Your task to perform on an android device: Search for panasonic triple a on costco, select the first entry, add it to the cart, then select checkout. Image 0: 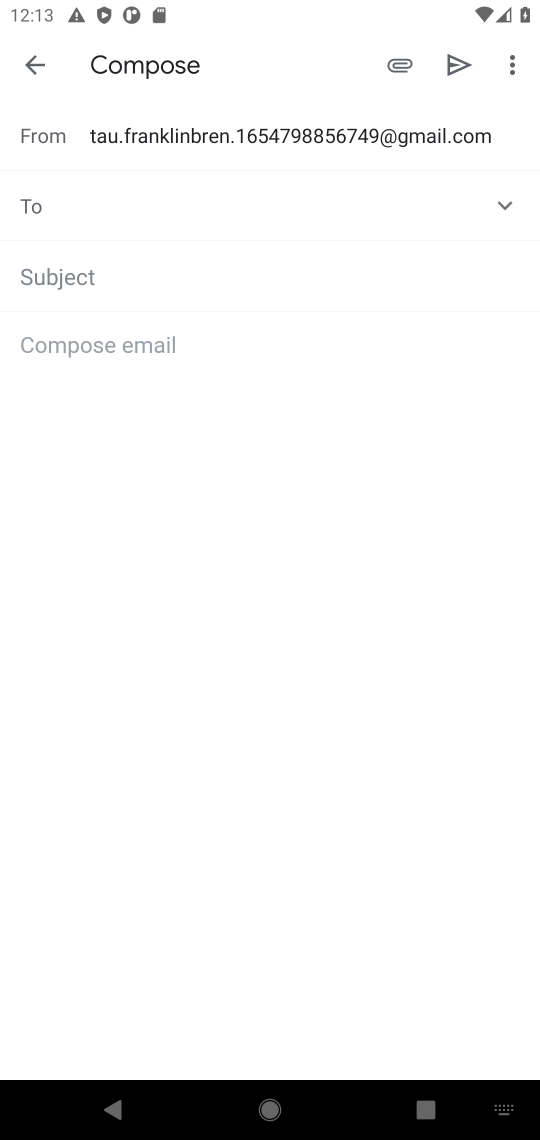
Step 0: press home button
Your task to perform on an android device: Search for panasonic triple a on costco, select the first entry, add it to the cart, then select checkout. Image 1: 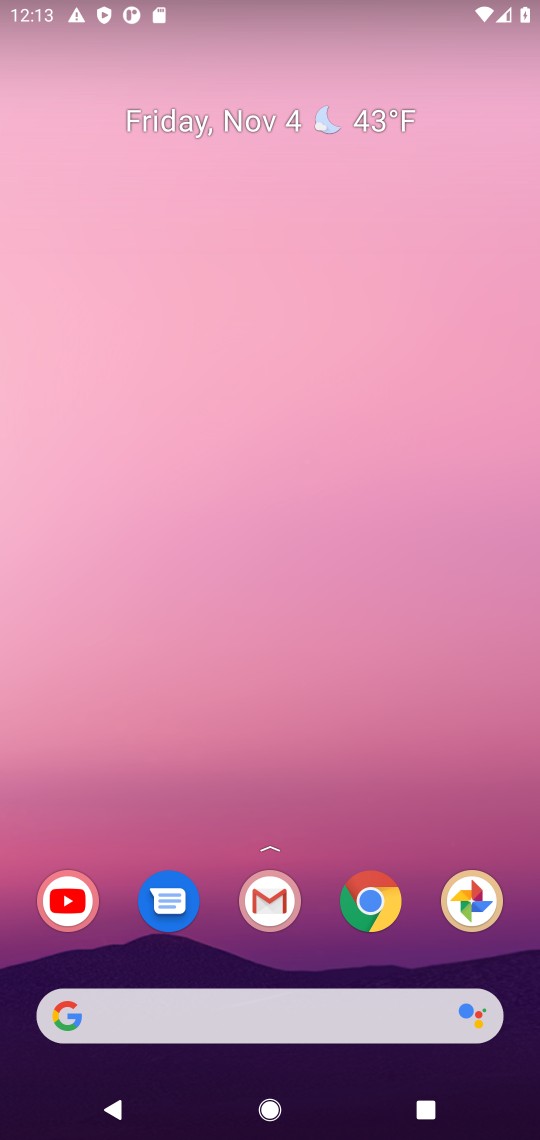
Step 1: click (367, 911)
Your task to perform on an android device: Search for panasonic triple a on costco, select the first entry, add it to the cart, then select checkout. Image 2: 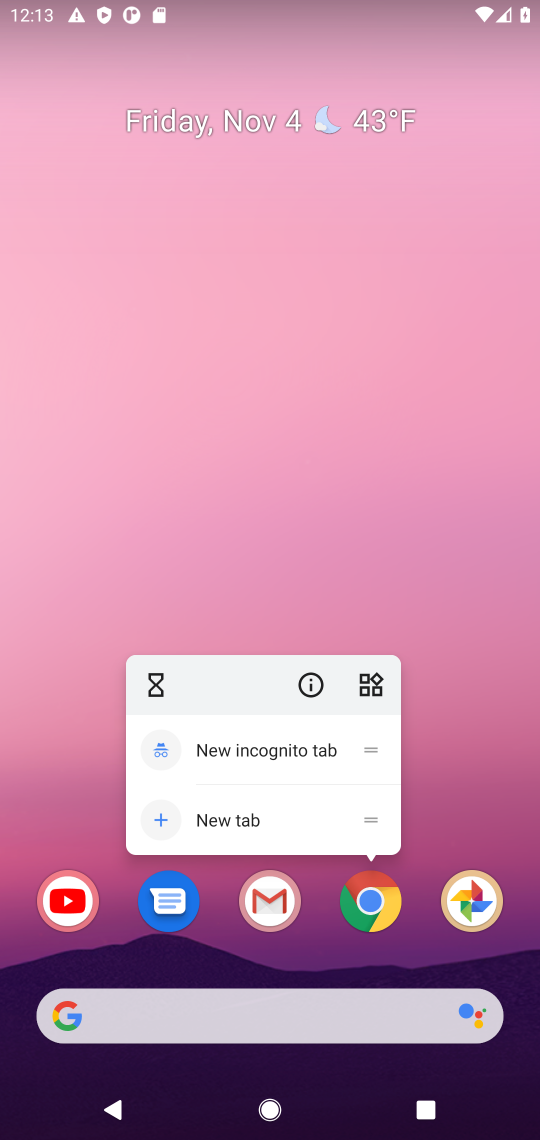
Step 2: click (367, 911)
Your task to perform on an android device: Search for panasonic triple a on costco, select the first entry, add it to the cart, then select checkout. Image 3: 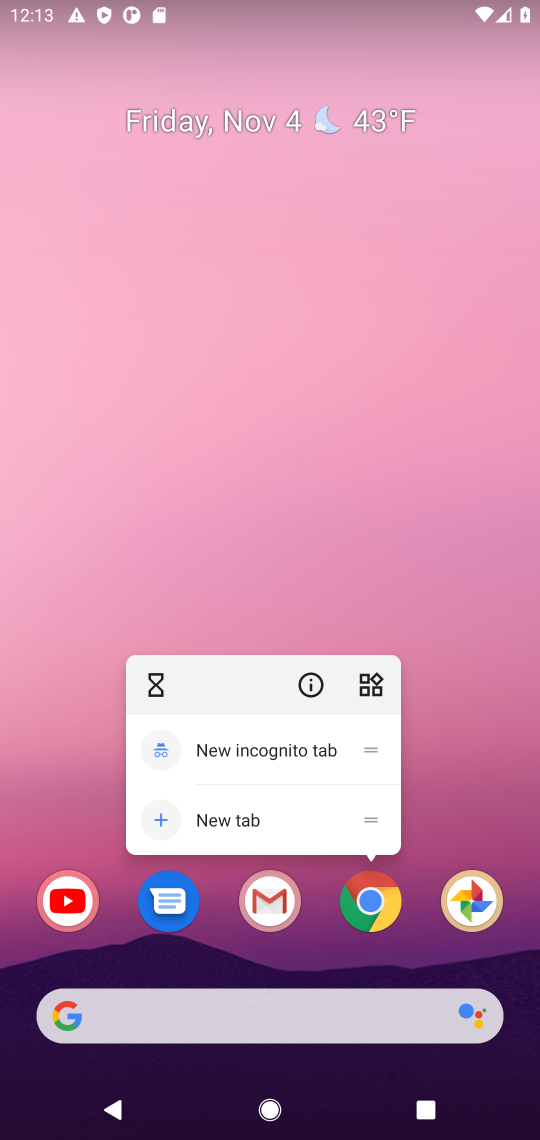
Step 3: click (367, 911)
Your task to perform on an android device: Search for panasonic triple a on costco, select the first entry, add it to the cart, then select checkout. Image 4: 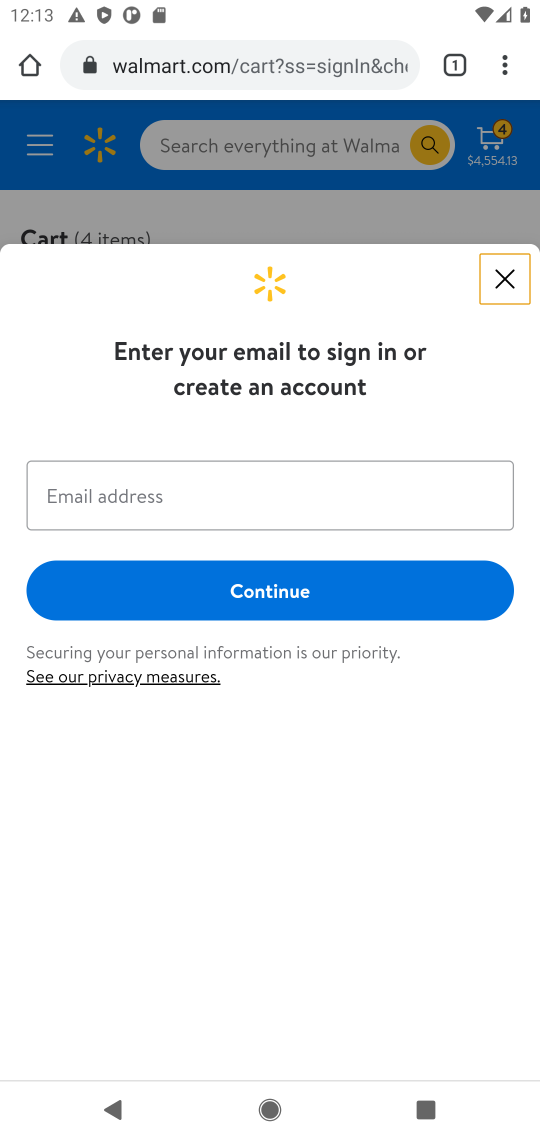
Step 4: click (283, 51)
Your task to perform on an android device: Search for panasonic triple a on costco, select the first entry, add it to the cart, then select checkout. Image 5: 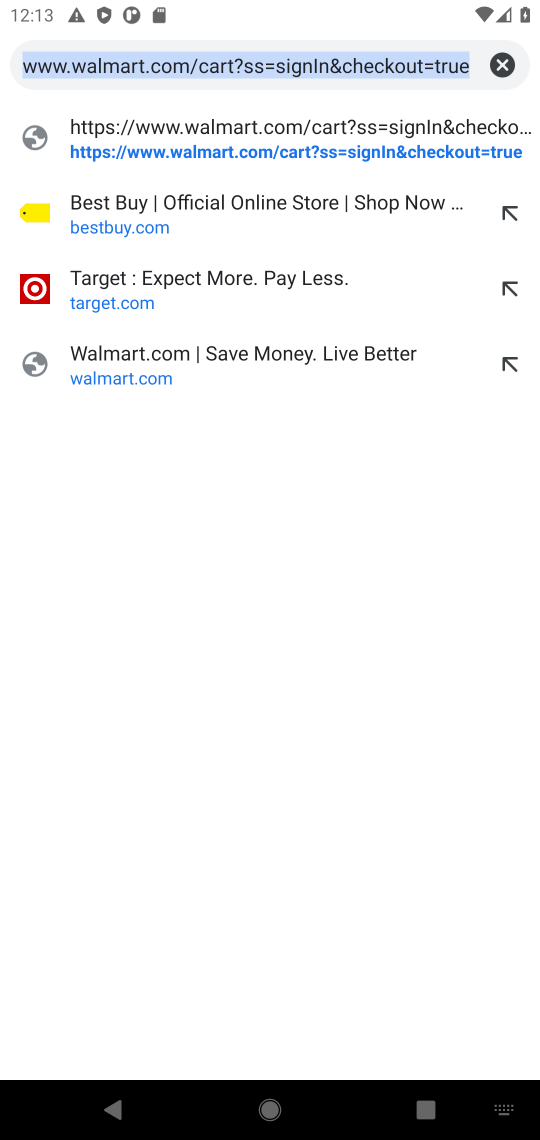
Step 5: click (508, 68)
Your task to perform on an android device: Search for panasonic triple a on costco, select the first entry, add it to the cart, then select checkout. Image 6: 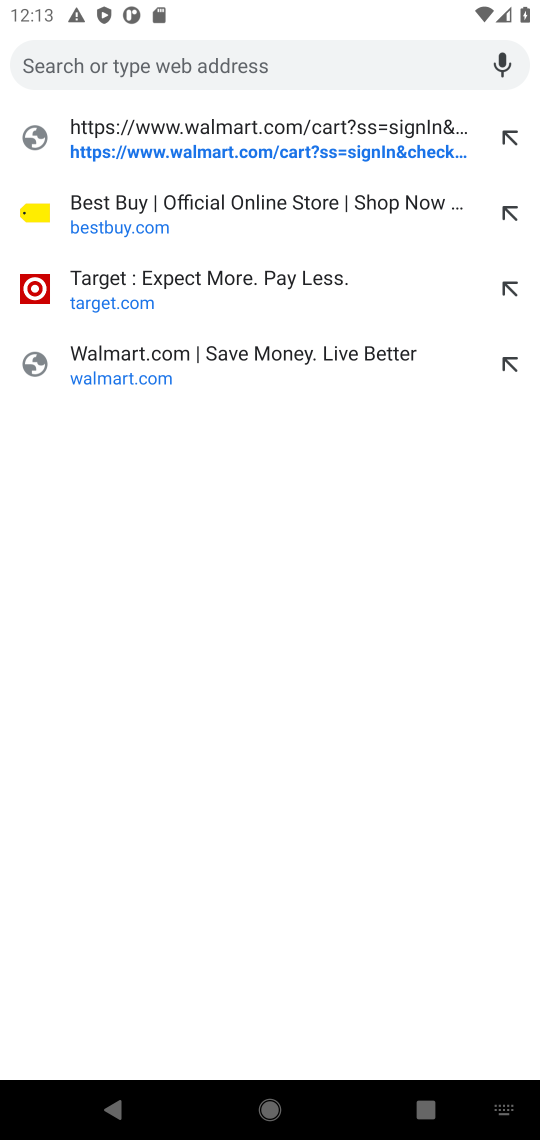
Step 6: type "costco"
Your task to perform on an android device: Search for panasonic triple a on costco, select the first entry, add it to the cart, then select checkout. Image 7: 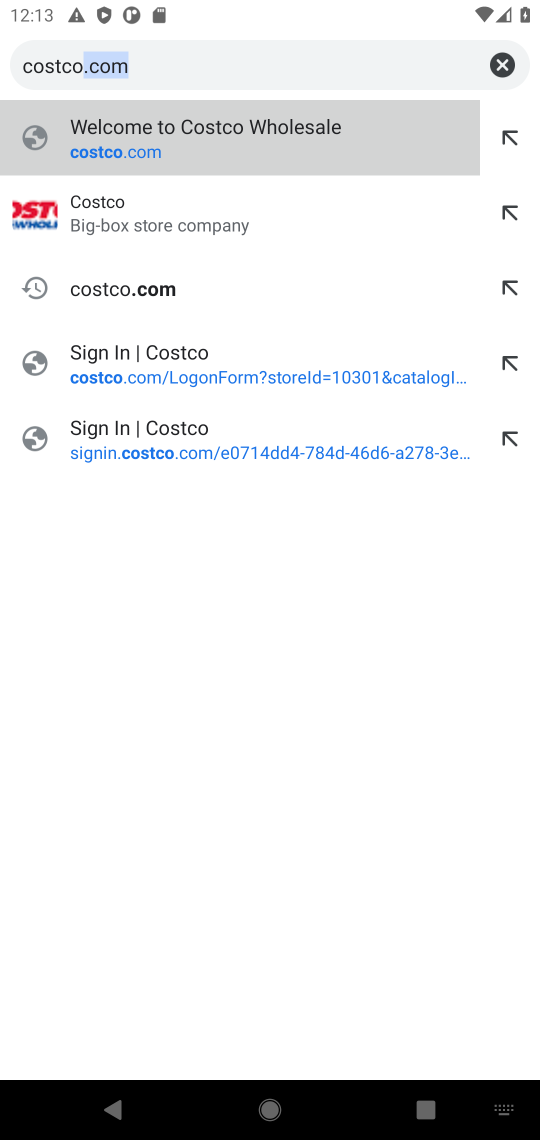
Step 7: press enter
Your task to perform on an android device: Search for panasonic triple a on costco, select the first entry, add it to the cart, then select checkout. Image 8: 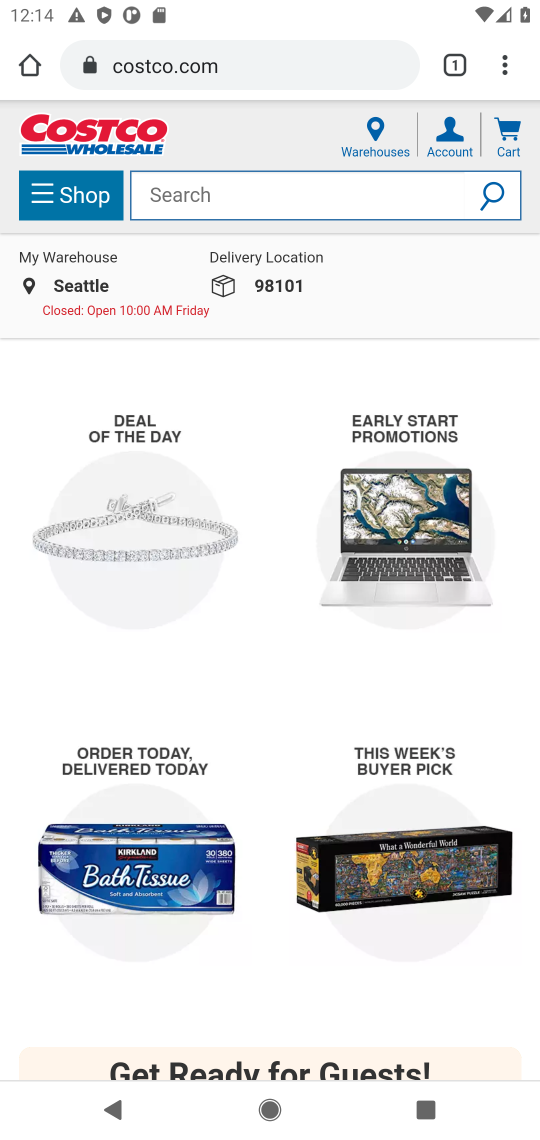
Step 8: click (327, 194)
Your task to perform on an android device: Search for panasonic triple a on costco, select the first entry, add it to the cart, then select checkout. Image 9: 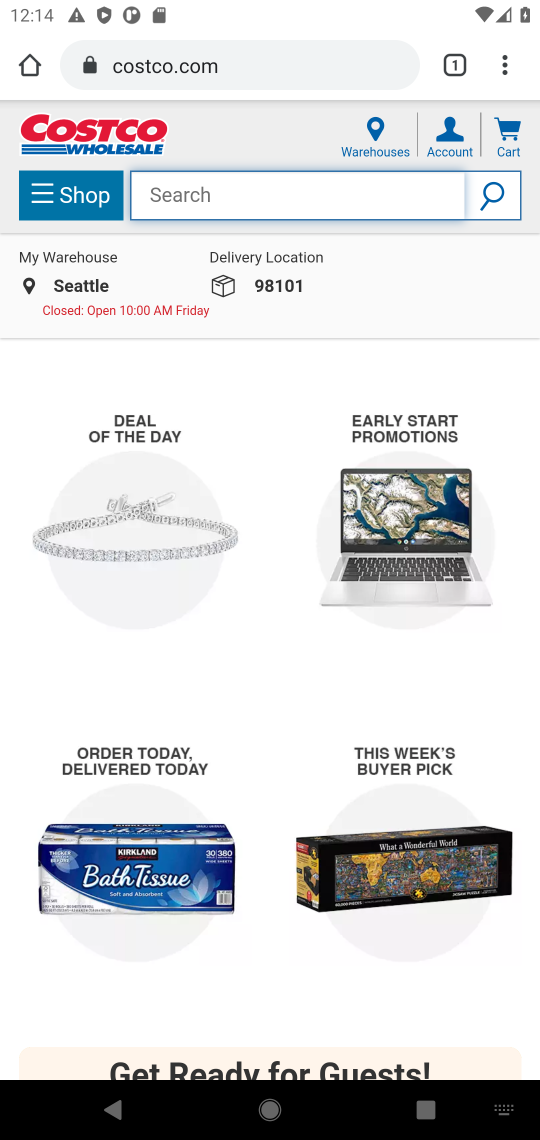
Step 9: type "panasonic triple a "
Your task to perform on an android device: Search for panasonic triple a on costco, select the first entry, add it to the cart, then select checkout. Image 10: 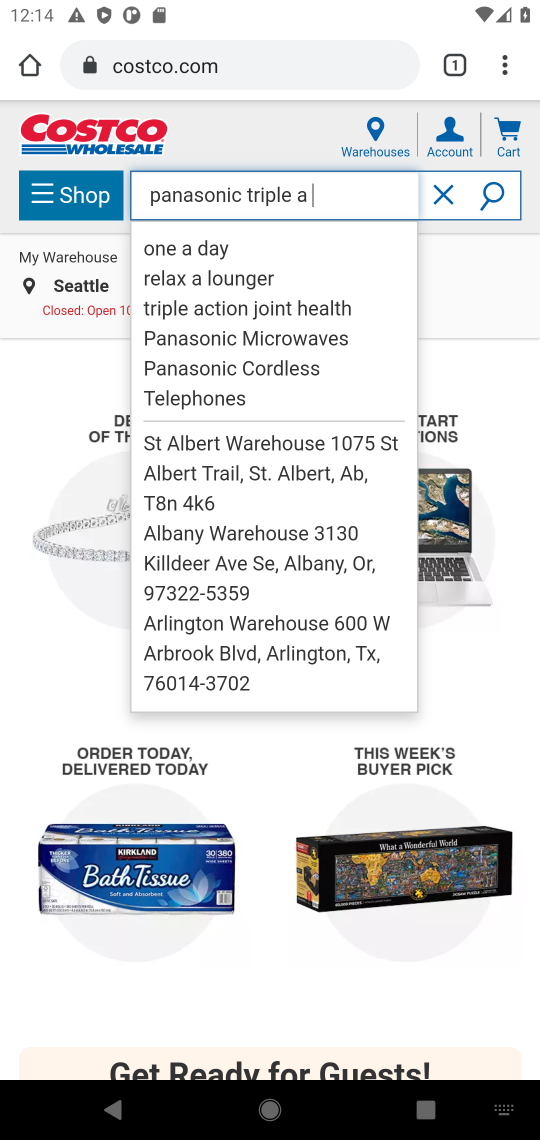
Step 10: click (505, 319)
Your task to perform on an android device: Search for panasonic triple a on costco, select the first entry, add it to the cart, then select checkout. Image 11: 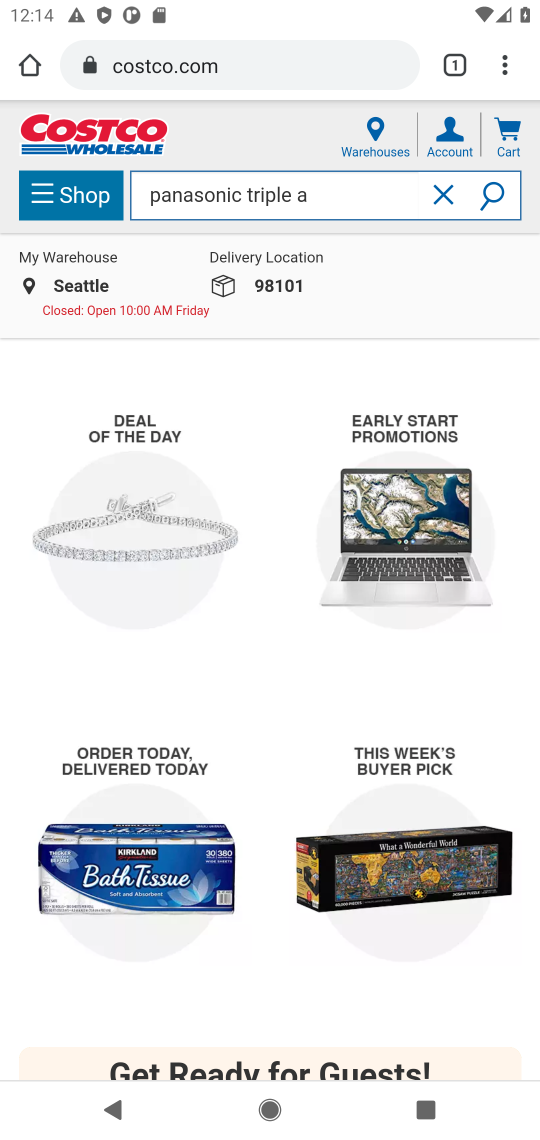
Step 11: task complete